Your task to perform on an android device: add a contact Image 0: 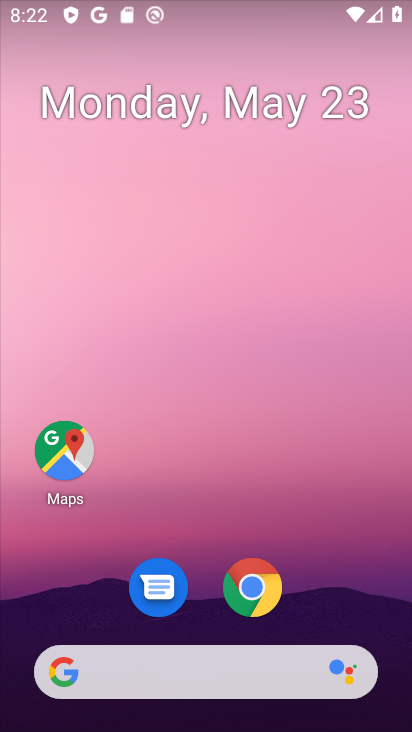
Step 0: drag from (201, 560) to (224, 197)
Your task to perform on an android device: add a contact Image 1: 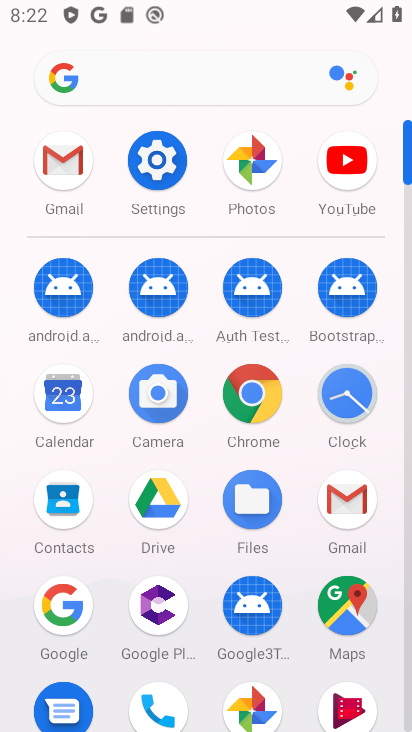
Step 1: click (67, 507)
Your task to perform on an android device: add a contact Image 2: 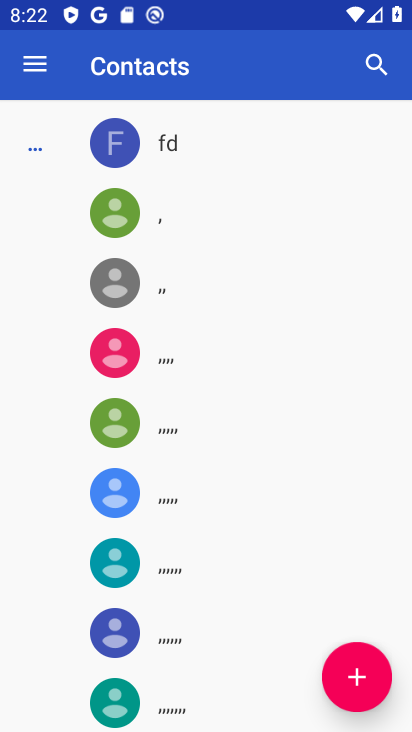
Step 2: click (369, 681)
Your task to perform on an android device: add a contact Image 3: 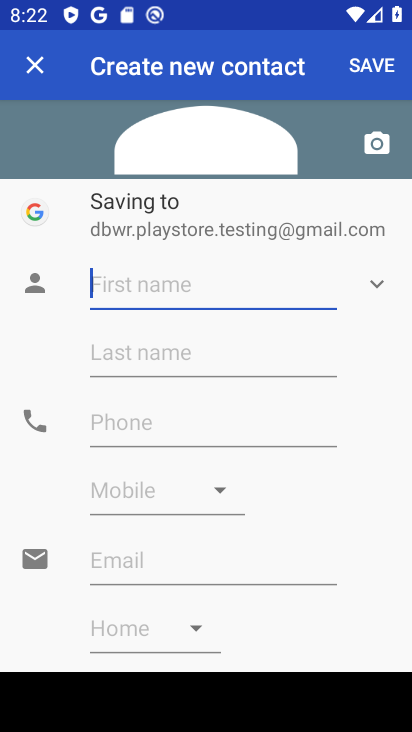
Step 3: type "hfgv"
Your task to perform on an android device: add a contact Image 4: 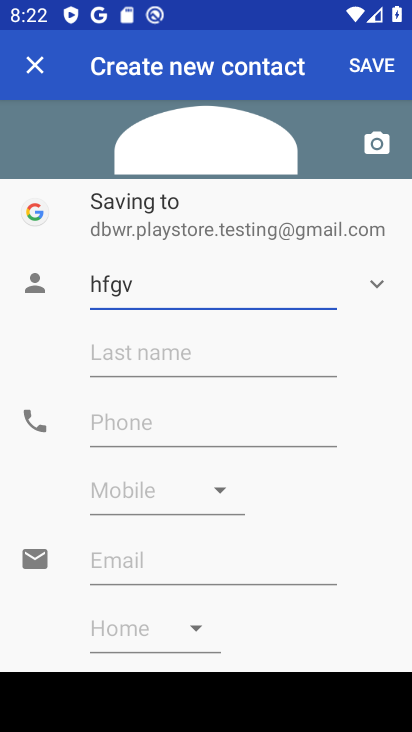
Step 4: click (117, 416)
Your task to perform on an android device: add a contact Image 5: 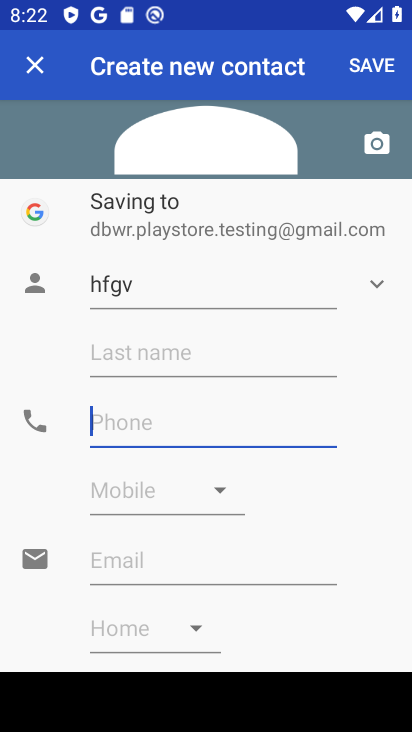
Step 5: type "7879"
Your task to perform on an android device: add a contact Image 6: 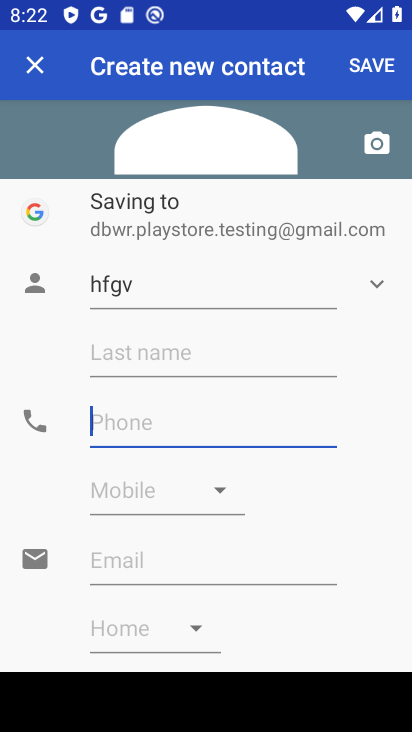
Step 6: click (377, 78)
Your task to perform on an android device: add a contact Image 7: 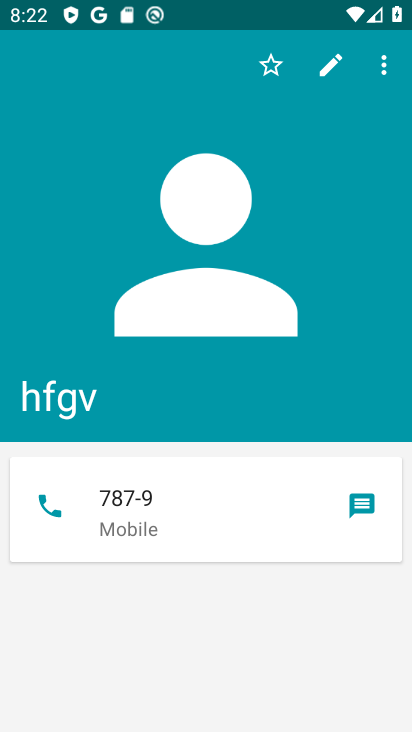
Step 7: task complete